Your task to perform on an android device: turn on data saver in the chrome app Image 0: 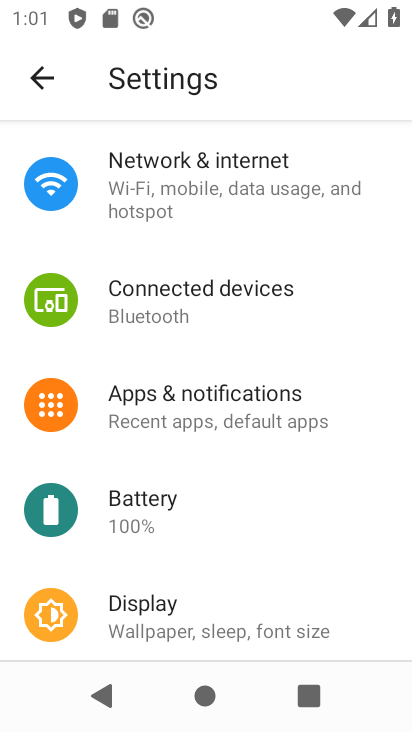
Step 0: press home button
Your task to perform on an android device: turn on data saver in the chrome app Image 1: 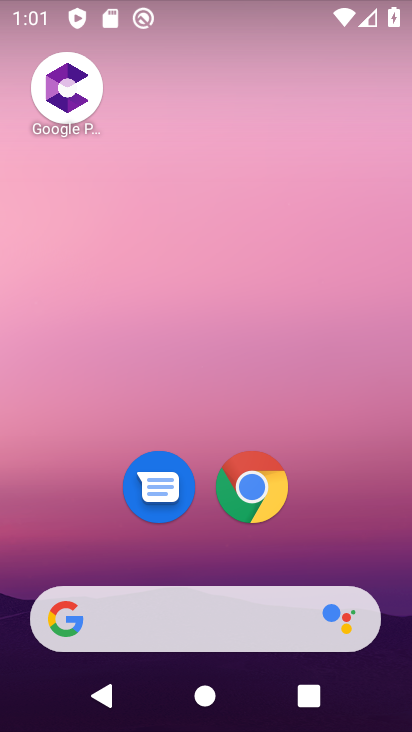
Step 1: click (267, 482)
Your task to perform on an android device: turn on data saver in the chrome app Image 2: 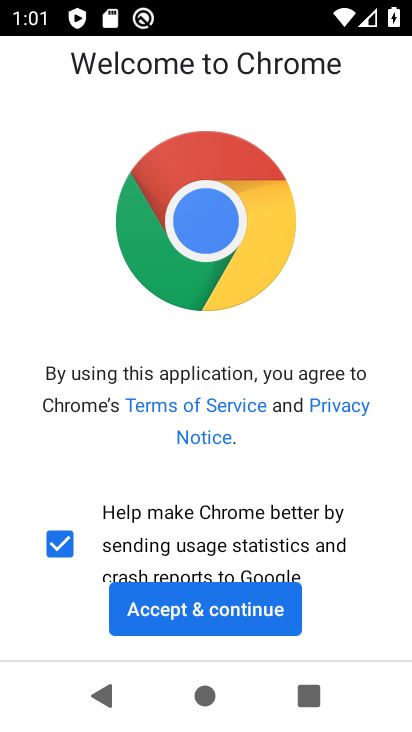
Step 2: click (246, 602)
Your task to perform on an android device: turn on data saver in the chrome app Image 3: 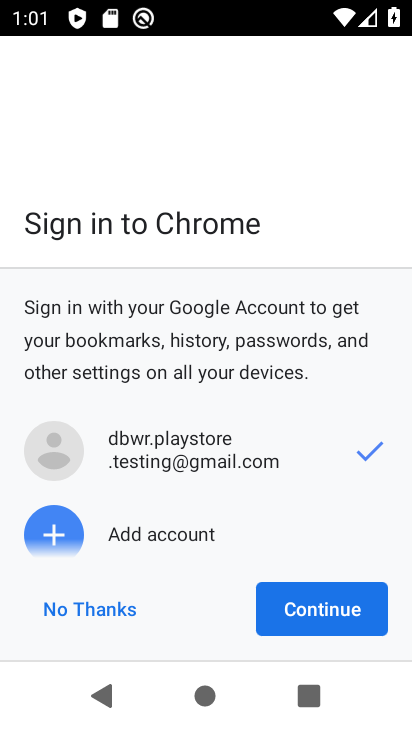
Step 3: click (326, 617)
Your task to perform on an android device: turn on data saver in the chrome app Image 4: 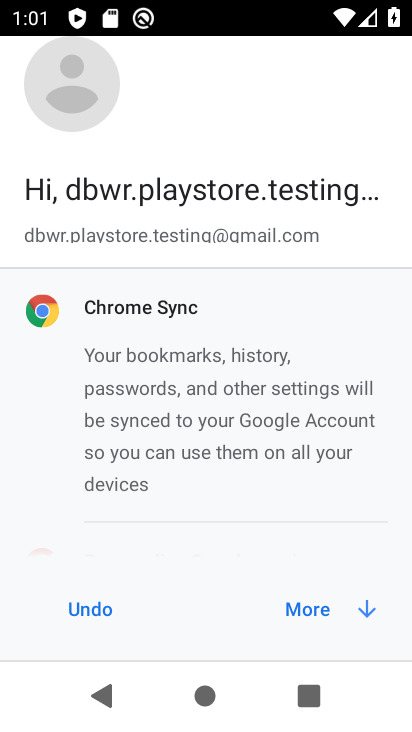
Step 4: click (340, 603)
Your task to perform on an android device: turn on data saver in the chrome app Image 5: 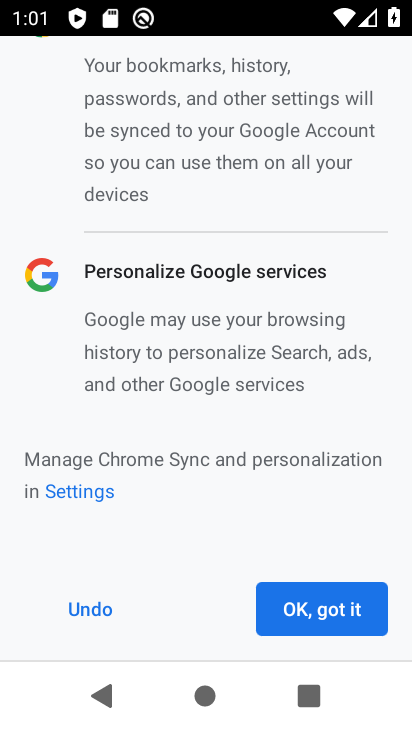
Step 5: click (340, 603)
Your task to perform on an android device: turn on data saver in the chrome app Image 6: 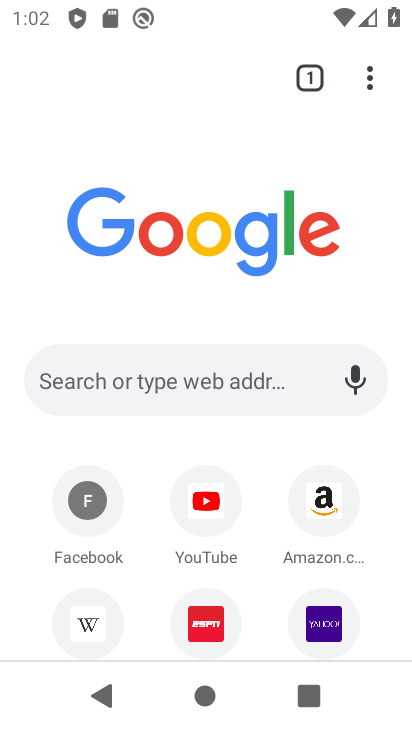
Step 6: click (377, 88)
Your task to perform on an android device: turn on data saver in the chrome app Image 7: 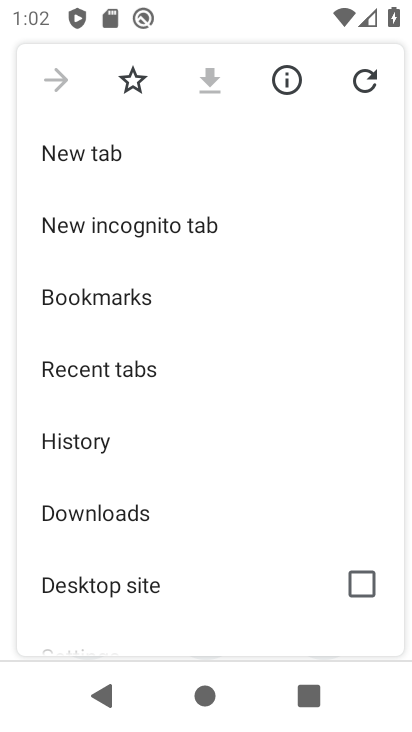
Step 7: drag from (149, 582) to (148, 309)
Your task to perform on an android device: turn on data saver in the chrome app Image 8: 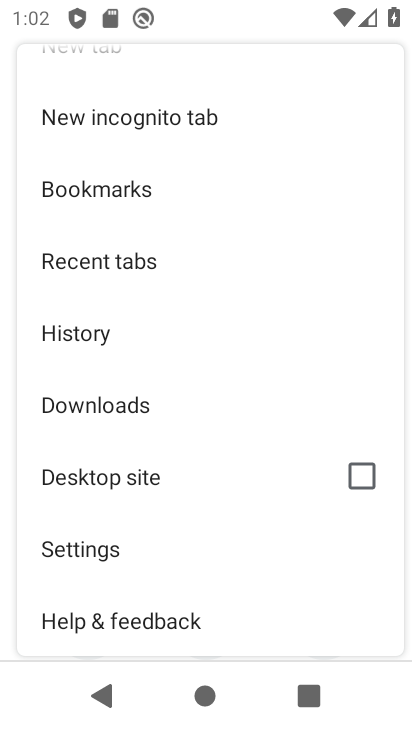
Step 8: click (107, 555)
Your task to perform on an android device: turn on data saver in the chrome app Image 9: 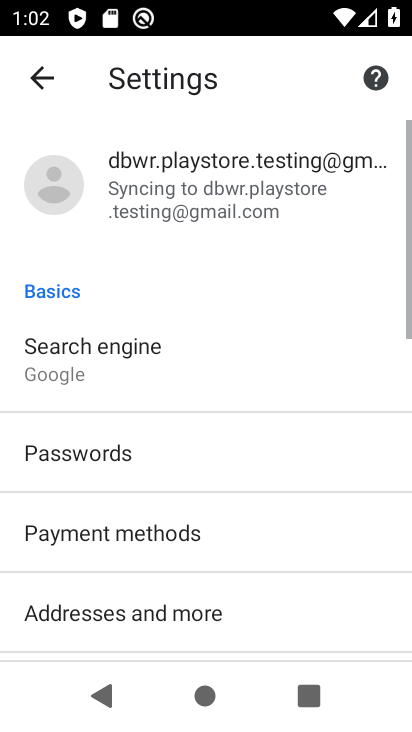
Step 9: drag from (153, 577) to (189, 82)
Your task to perform on an android device: turn on data saver in the chrome app Image 10: 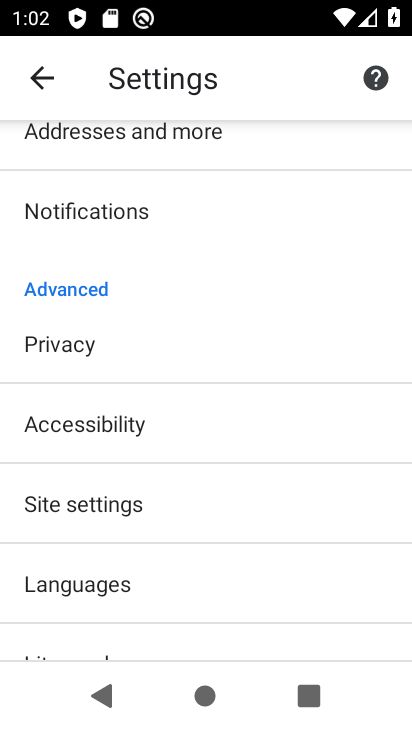
Step 10: drag from (161, 592) to (166, 265)
Your task to perform on an android device: turn on data saver in the chrome app Image 11: 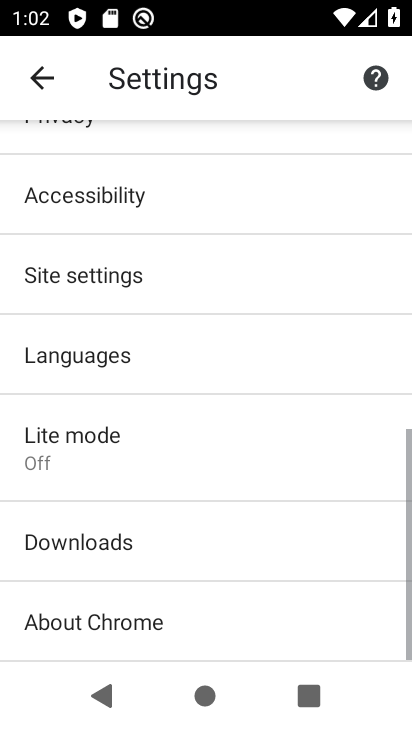
Step 11: click (102, 427)
Your task to perform on an android device: turn on data saver in the chrome app Image 12: 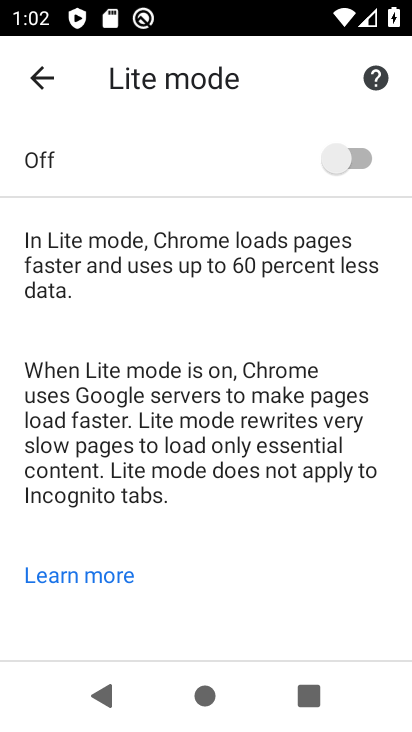
Step 12: click (359, 167)
Your task to perform on an android device: turn on data saver in the chrome app Image 13: 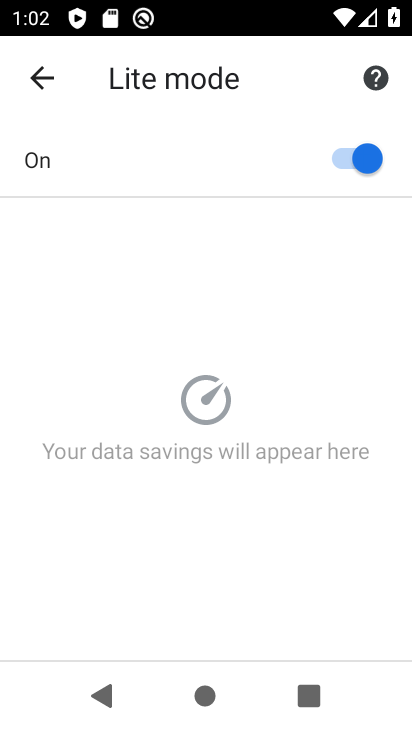
Step 13: task complete